Your task to perform on an android device: Show me the alarms in the clock app Image 0: 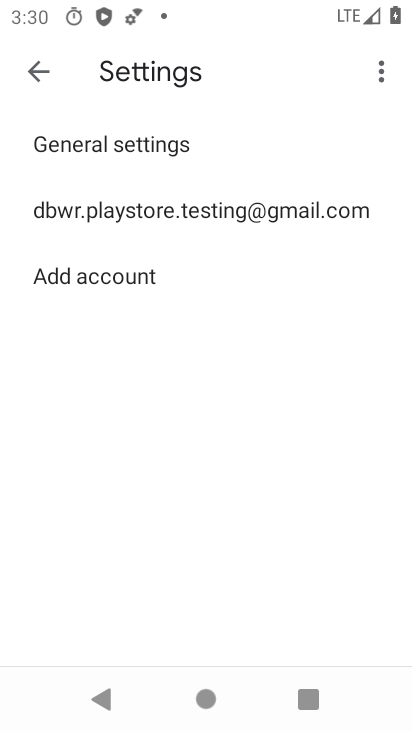
Step 0: press home button
Your task to perform on an android device: Show me the alarms in the clock app Image 1: 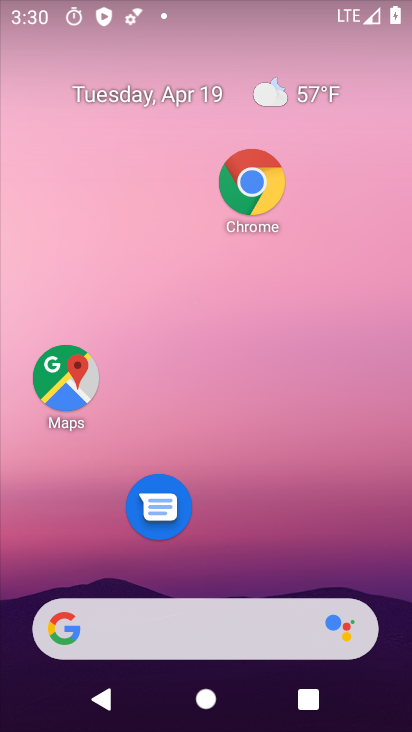
Step 1: drag from (261, 488) to (260, 177)
Your task to perform on an android device: Show me the alarms in the clock app Image 2: 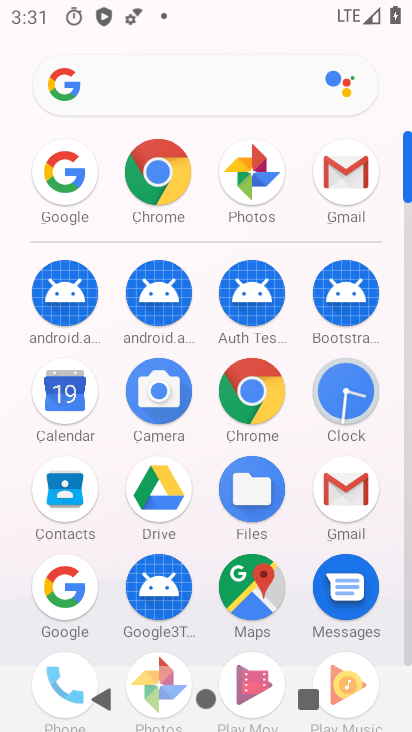
Step 2: click (343, 402)
Your task to perform on an android device: Show me the alarms in the clock app Image 3: 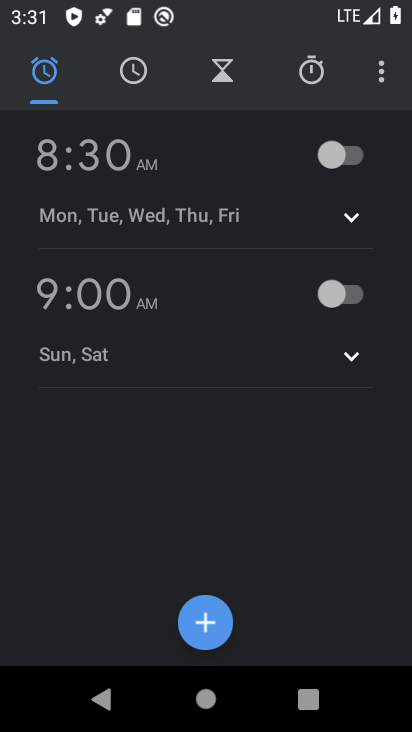
Step 3: task complete